Your task to perform on an android device: change the clock display to show seconds Image 0: 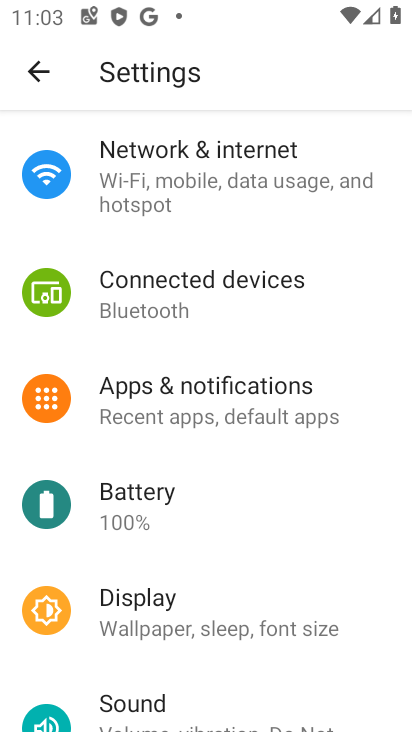
Step 0: drag from (211, 536) to (199, 165)
Your task to perform on an android device: change the clock display to show seconds Image 1: 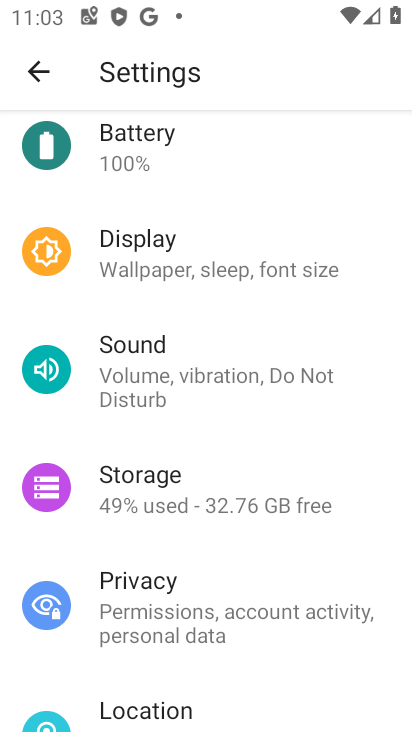
Step 1: drag from (175, 610) to (112, 137)
Your task to perform on an android device: change the clock display to show seconds Image 2: 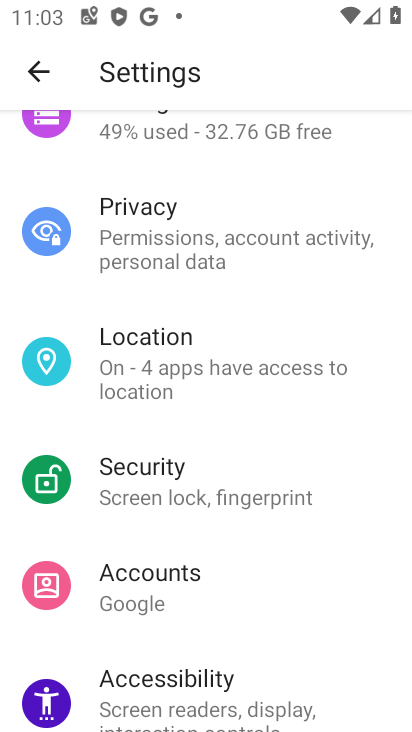
Step 2: press home button
Your task to perform on an android device: change the clock display to show seconds Image 3: 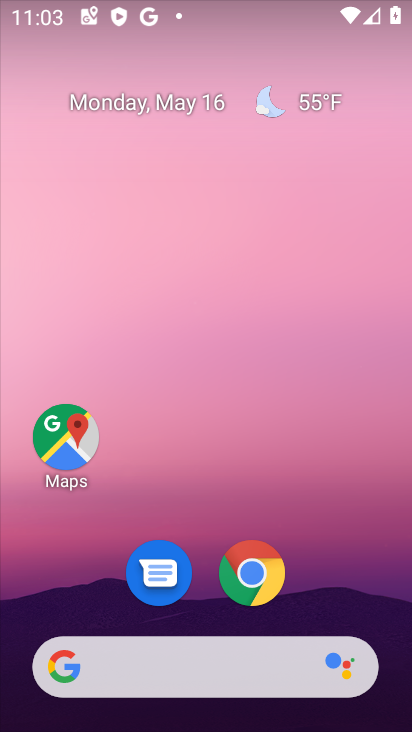
Step 3: drag from (407, 567) to (366, 58)
Your task to perform on an android device: change the clock display to show seconds Image 4: 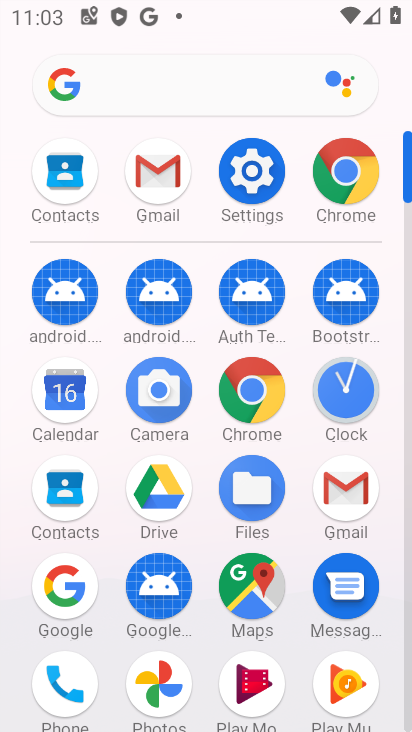
Step 4: click (358, 403)
Your task to perform on an android device: change the clock display to show seconds Image 5: 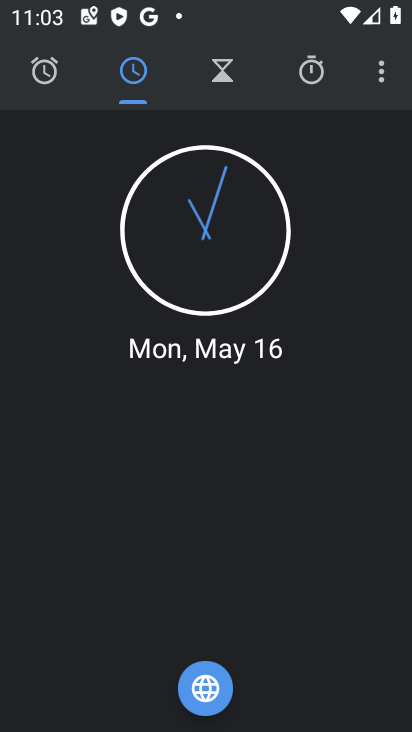
Step 5: click (379, 88)
Your task to perform on an android device: change the clock display to show seconds Image 6: 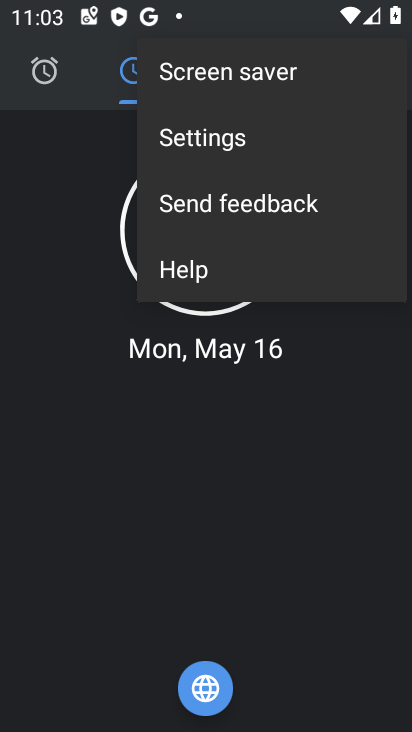
Step 6: click (205, 145)
Your task to perform on an android device: change the clock display to show seconds Image 7: 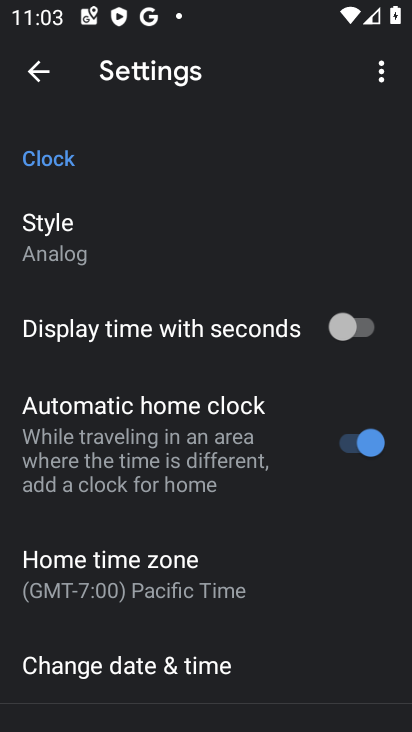
Step 7: click (337, 330)
Your task to perform on an android device: change the clock display to show seconds Image 8: 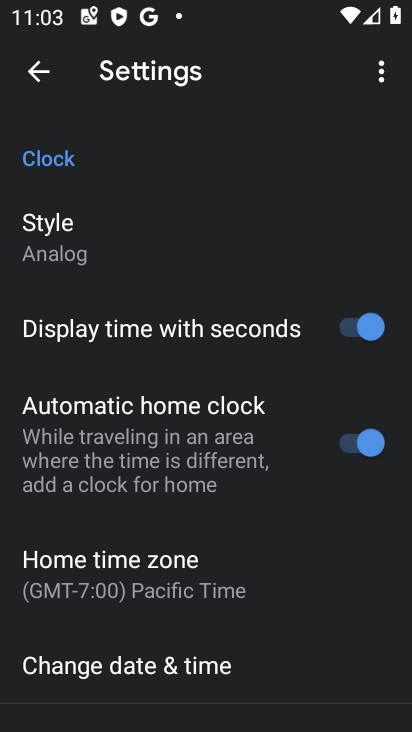
Step 8: task complete